Your task to perform on an android device: Open Yahoo.com Image 0: 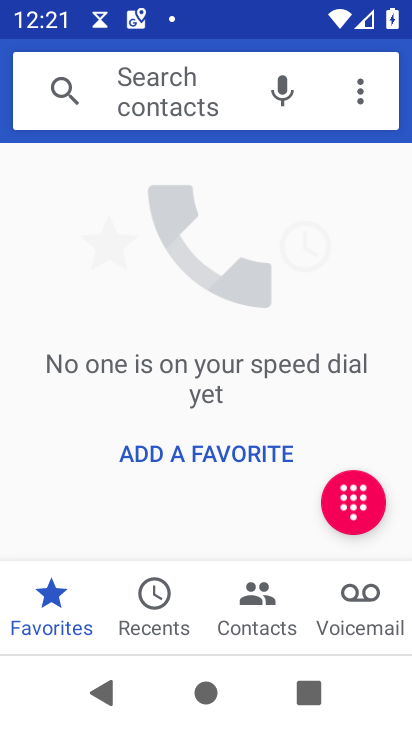
Step 0: press home button
Your task to perform on an android device: Open Yahoo.com Image 1: 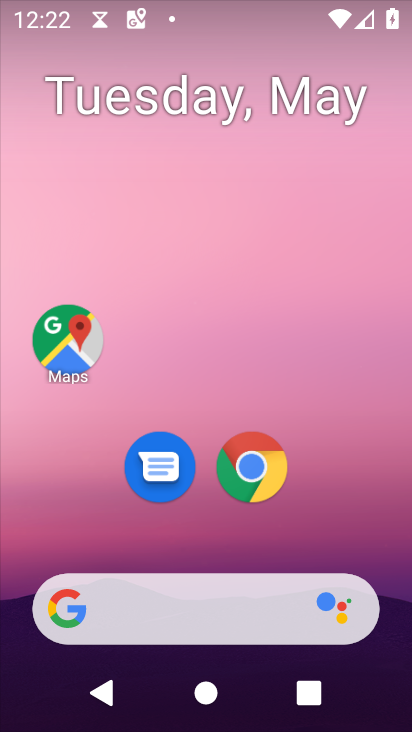
Step 1: click (263, 458)
Your task to perform on an android device: Open Yahoo.com Image 2: 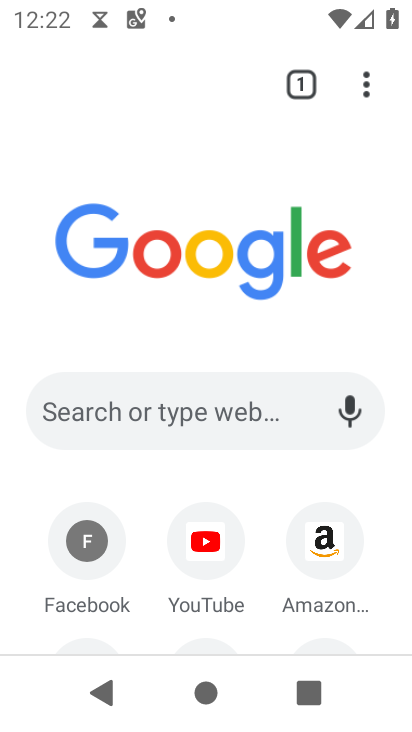
Step 2: drag from (256, 583) to (248, 448)
Your task to perform on an android device: Open Yahoo.com Image 3: 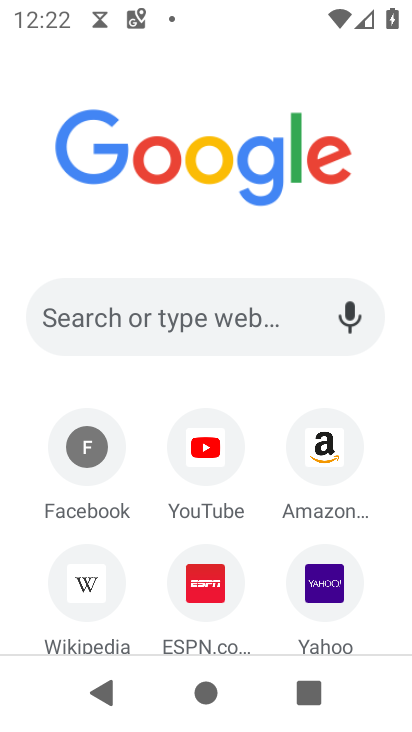
Step 3: click (322, 579)
Your task to perform on an android device: Open Yahoo.com Image 4: 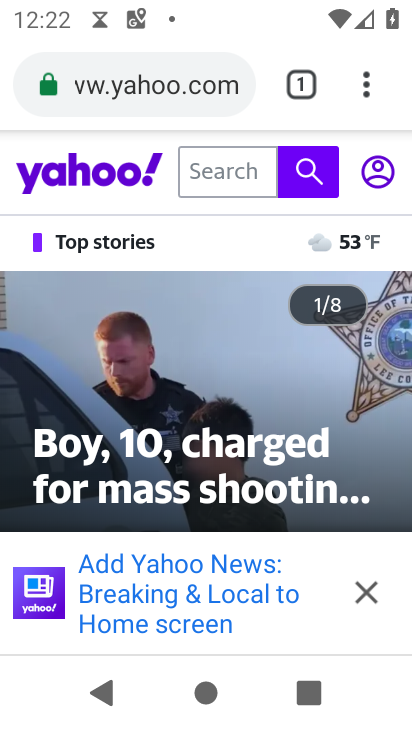
Step 4: task complete